Your task to perform on an android device: Open calendar and show me the second week of next month Image 0: 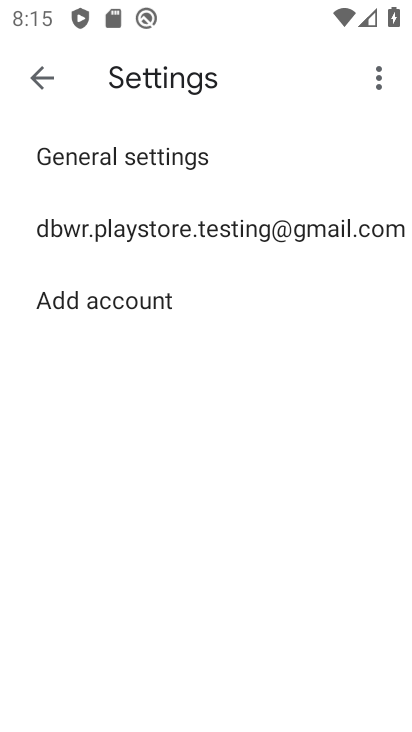
Step 0: press back button
Your task to perform on an android device: Open calendar and show me the second week of next month Image 1: 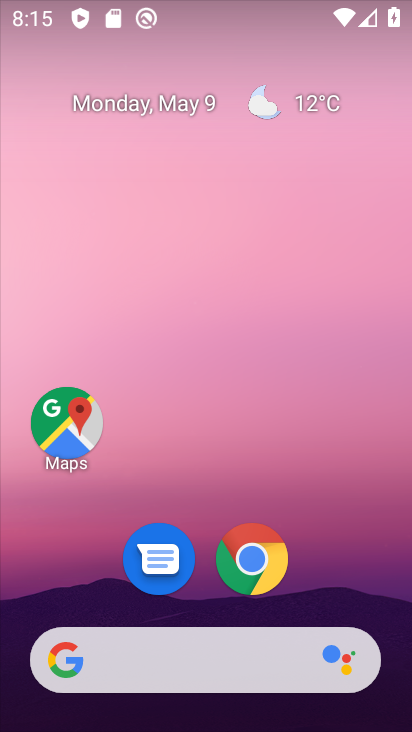
Step 1: drag from (212, 545) to (236, 65)
Your task to perform on an android device: Open calendar and show me the second week of next month Image 2: 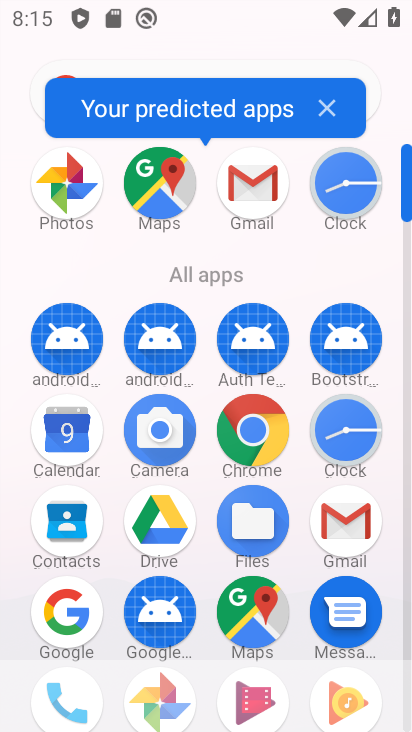
Step 2: click (78, 423)
Your task to perform on an android device: Open calendar and show me the second week of next month Image 3: 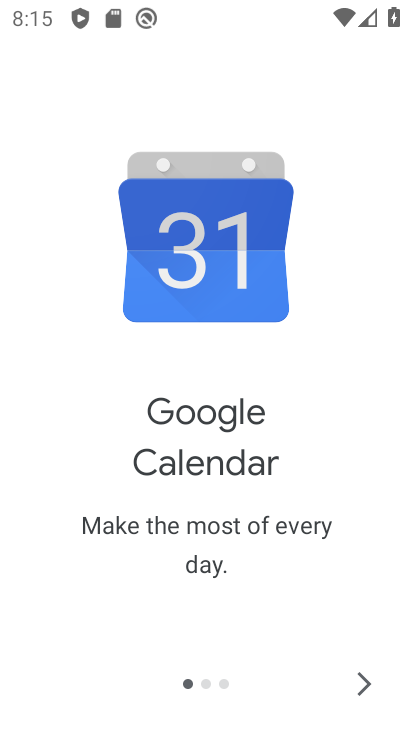
Step 3: click (356, 696)
Your task to perform on an android device: Open calendar and show me the second week of next month Image 4: 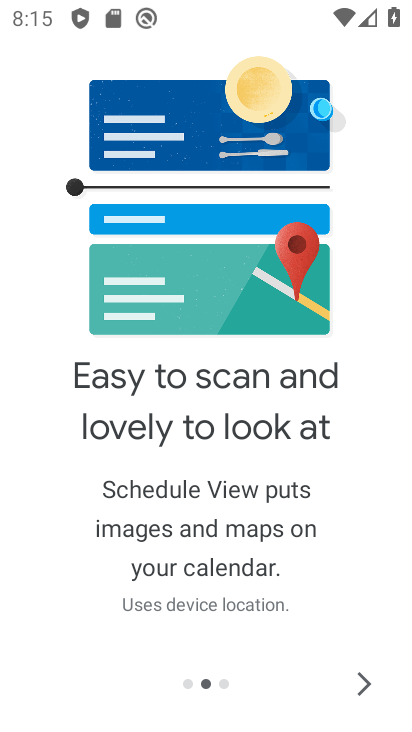
Step 4: click (359, 691)
Your task to perform on an android device: Open calendar and show me the second week of next month Image 5: 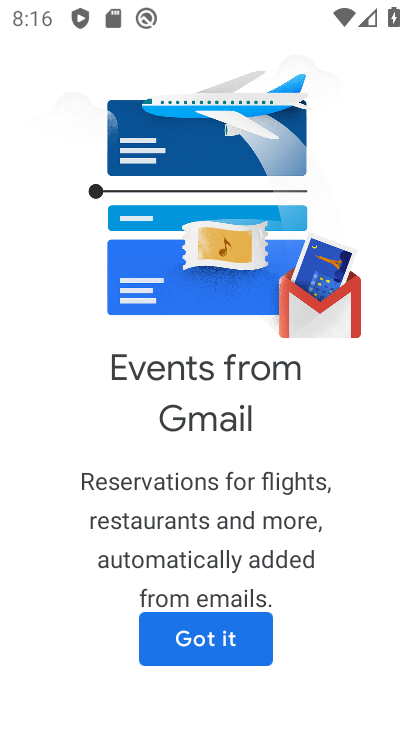
Step 5: click (241, 638)
Your task to perform on an android device: Open calendar and show me the second week of next month Image 6: 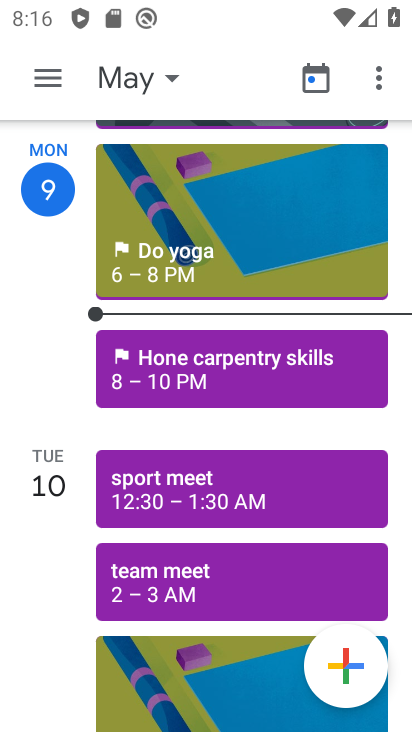
Step 6: click (152, 81)
Your task to perform on an android device: Open calendar and show me the second week of next month Image 7: 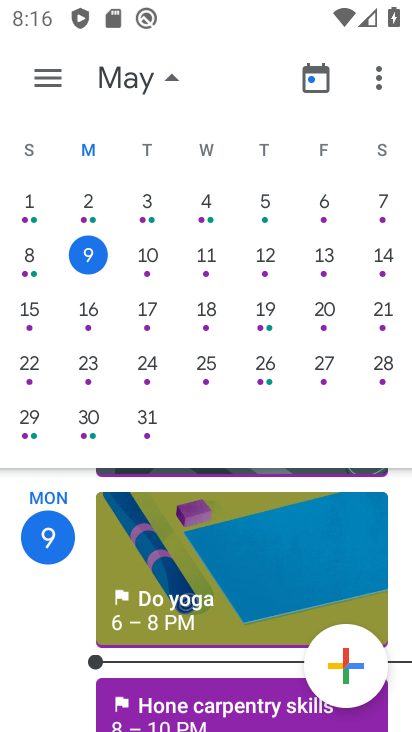
Step 7: drag from (363, 274) to (22, 271)
Your task to perform on an android device: Open calendar and show me the second week of next month Image 8: 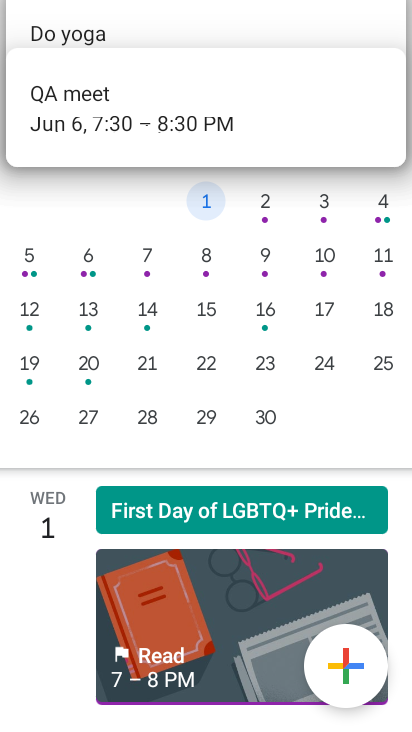
Step 8: click (56, 182)
Your task to perform on an android device: Open calendar and show me the second week of next month Image 9: 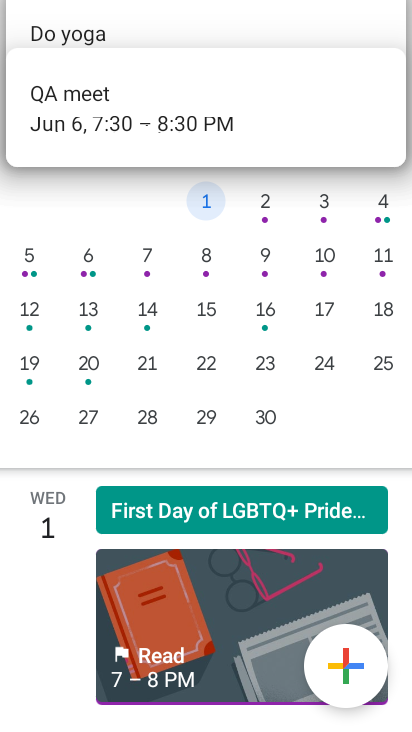
Step 9: click (98, 250)
Your task to perform on an android device: Open calendar and show me the second week of next month Image 10: 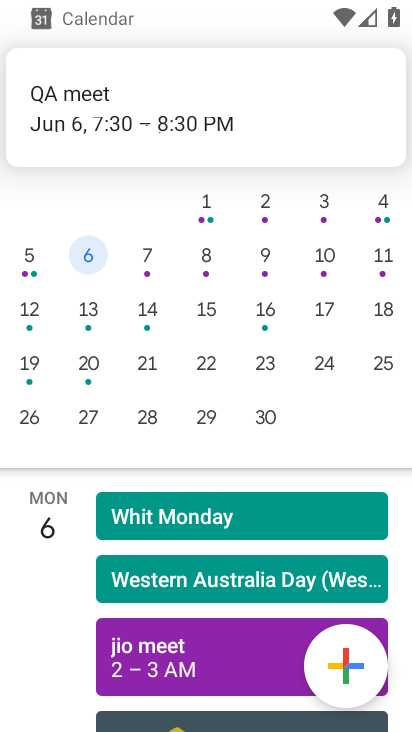
Step 10: task complete